Your task to perform on an android device: Open calendar and show me the first week of next month Image 0: 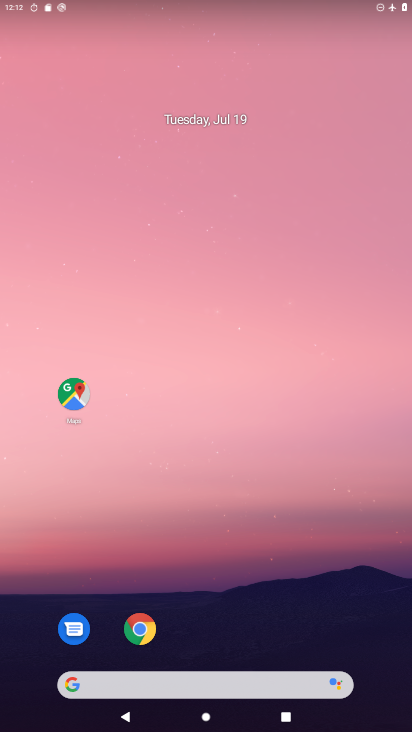
Step 0: drag from (373, 604) to (351, 69)
Your task to perform on an android device: Open calendar and show me the first week of next month Image 1: 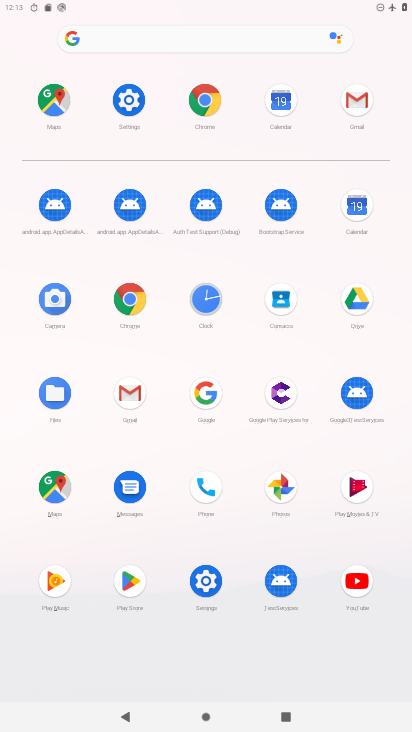
Step 1: click (362, 202)
Your task to perform on an android device: Open calendar and show me the first week of next month Image 2: 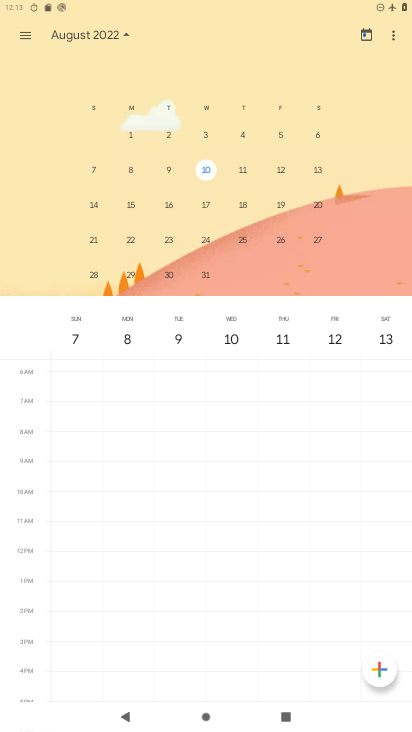
Step 2: click (203, 137)
Your task to perform on an android device: Open calendar and show me the first week of next month Image 3: 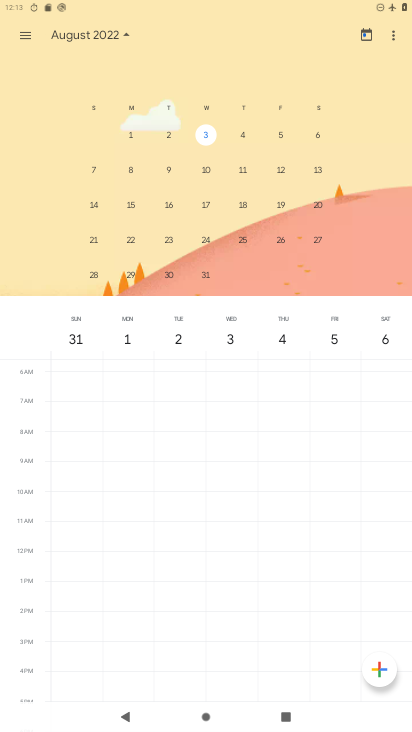
Step 3: task complete